Your task to perform on an android device: Open network settings Image 0: 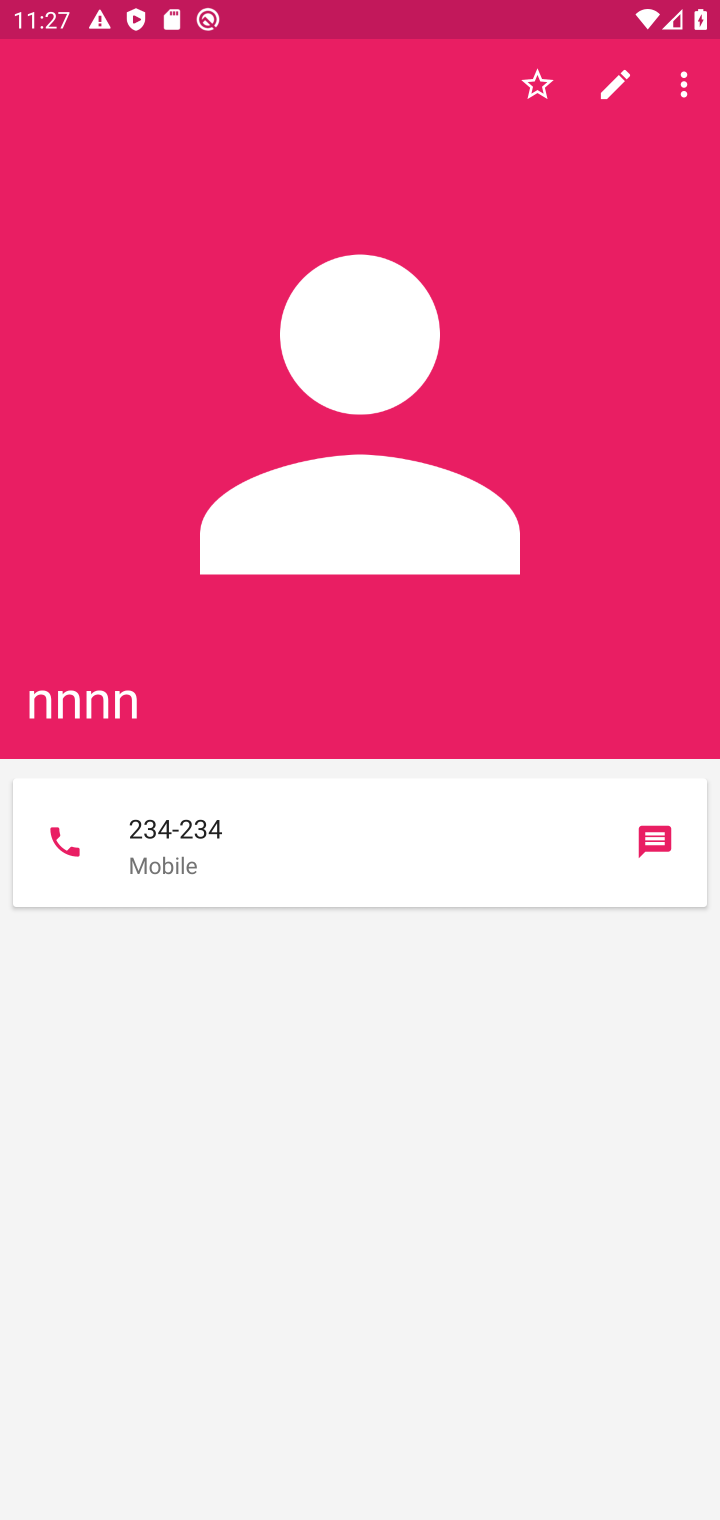
Step 0: press home button
Your task to perform on an android device: Open network settings Image 1: 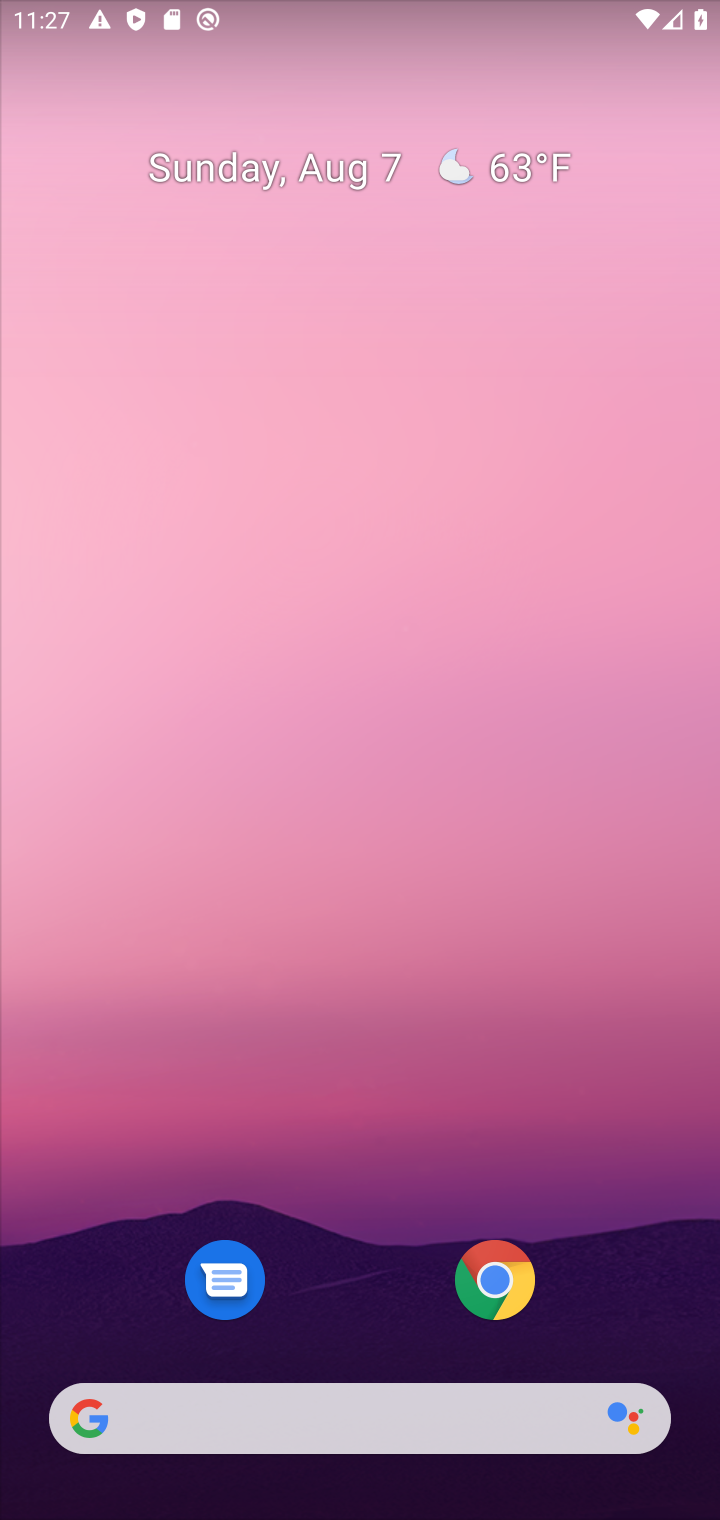
Step 1: drag from (351, 907) to (294, 100)
Your task to perform on an android device: Open network settings Image 2: 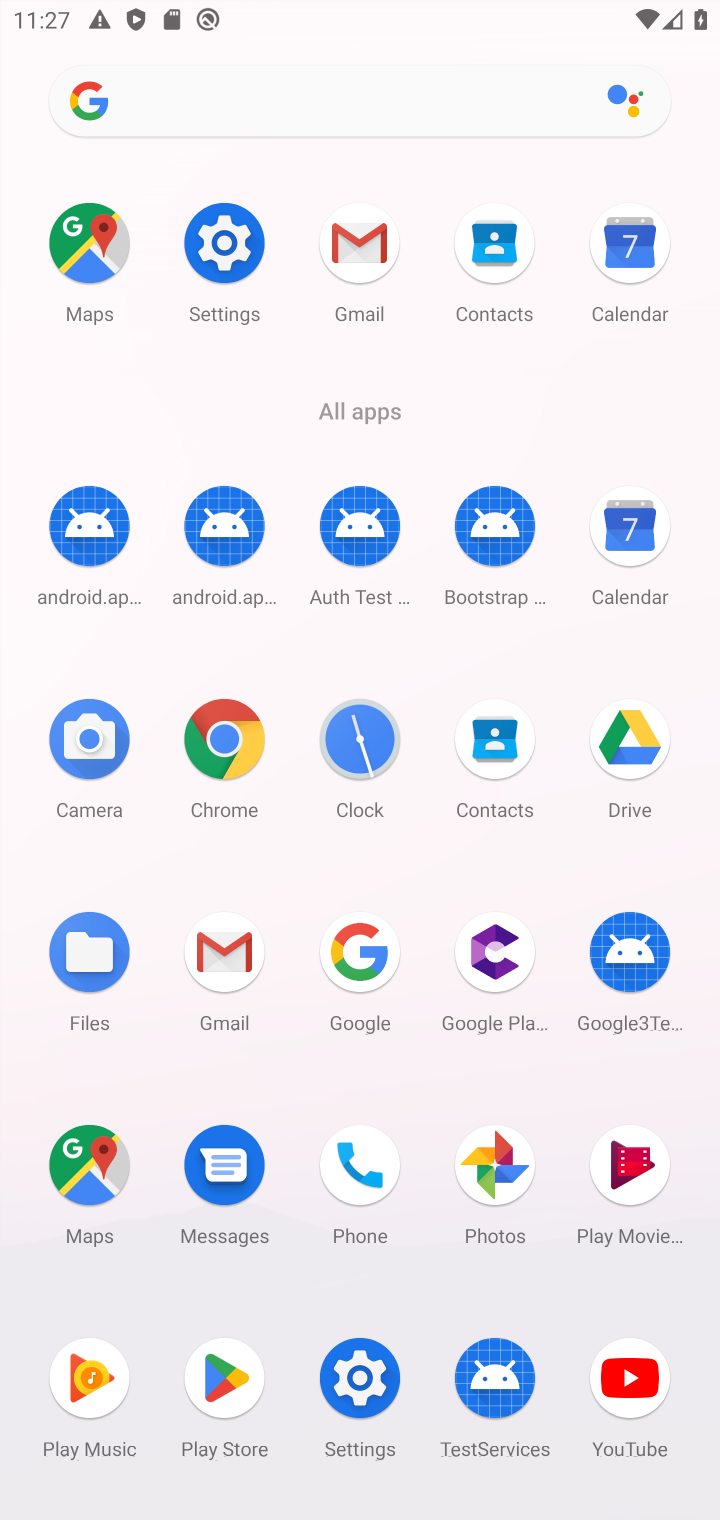
Step 2: click (361, 1374)
Your task to perform on an android device: Open network settings Image 3: 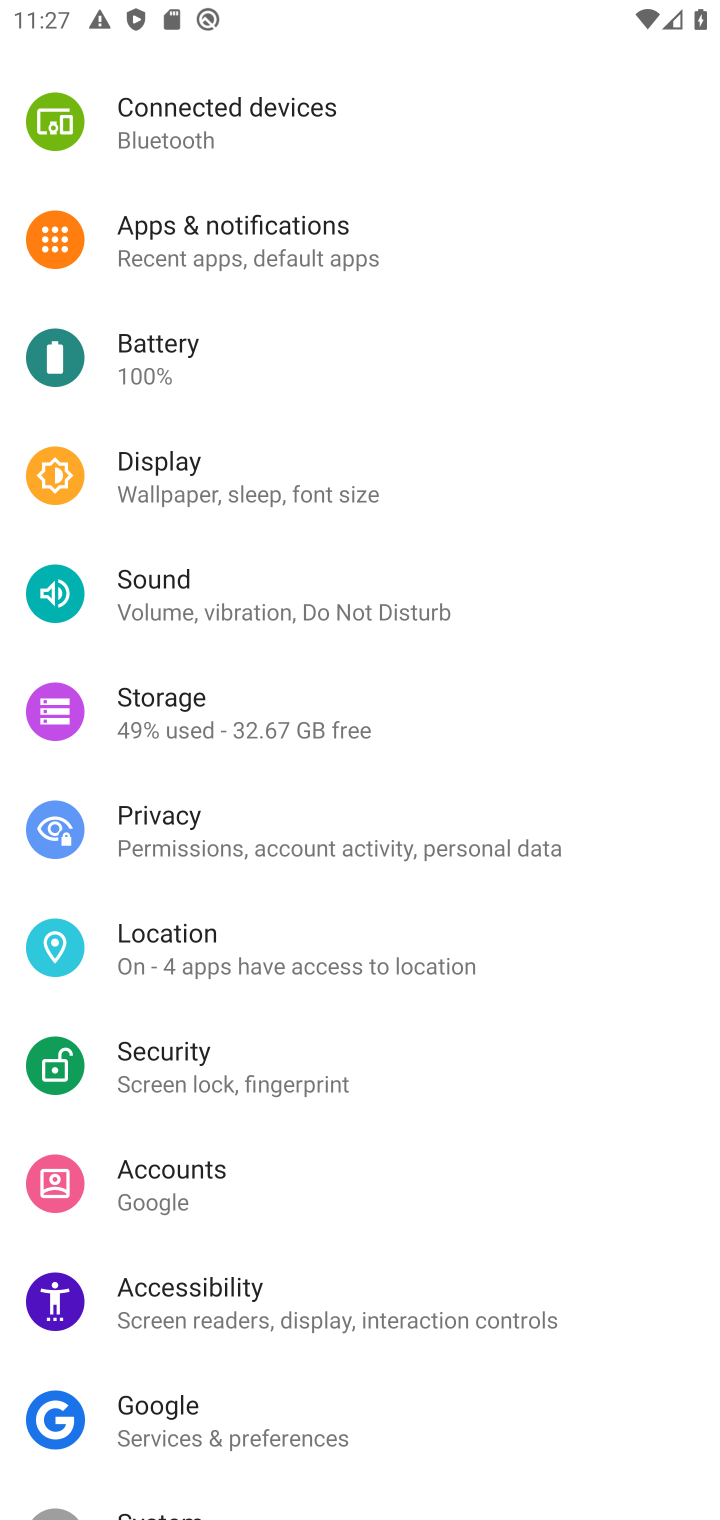
Step 3: drag from (229, 181) to (382, 1269)
Your task to perform on an android device: Open network settings Image 4: 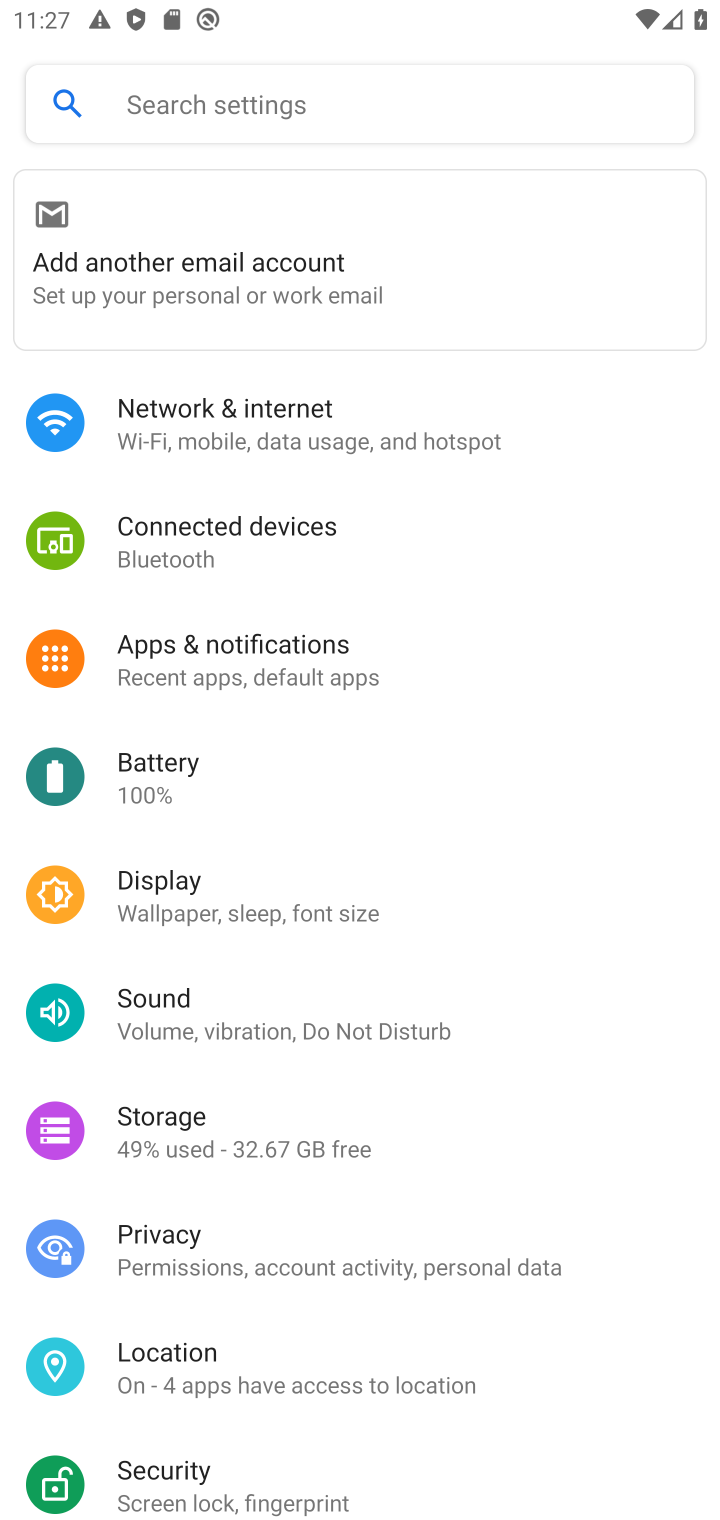
Step 4: click (209, 391)
Your task to perform on an android device: Open network settings Image 5: 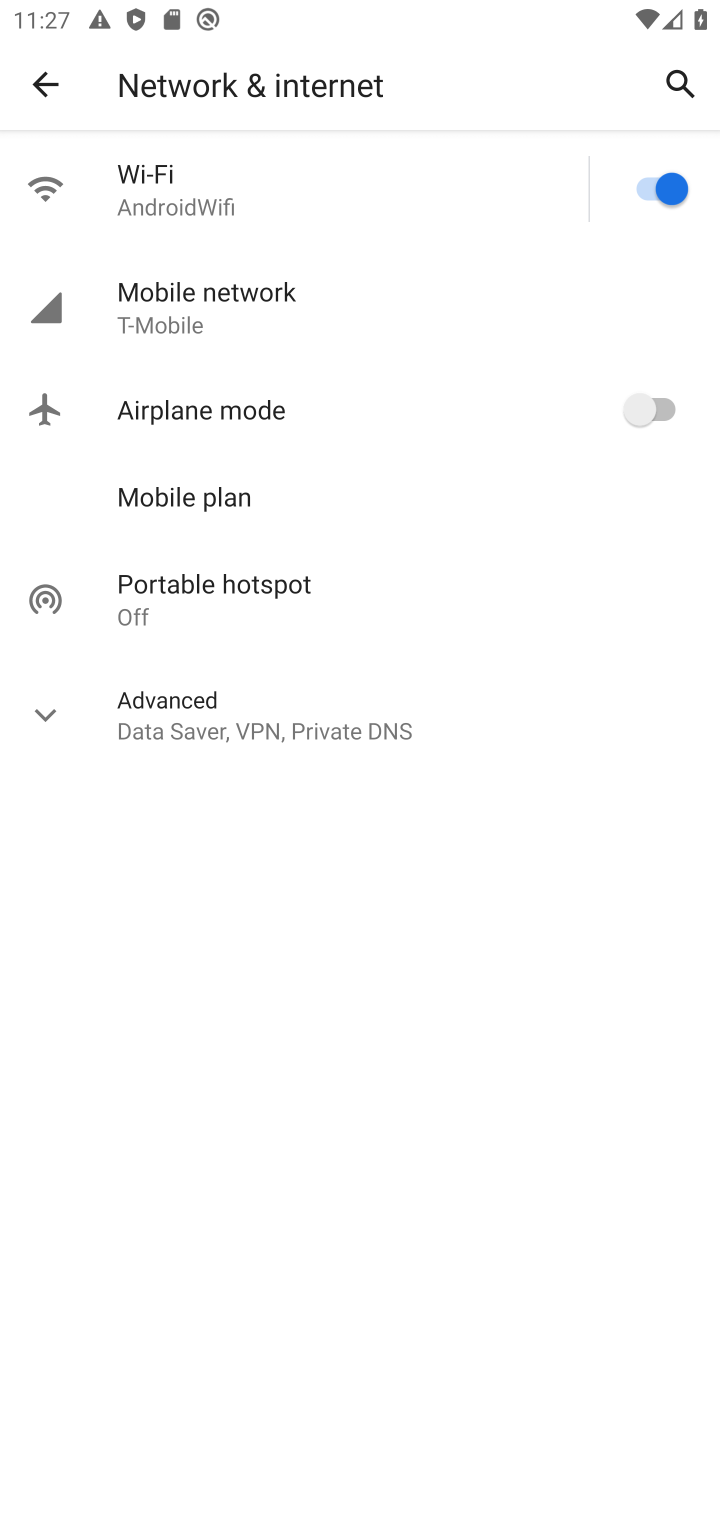
Step 5: click (209, 309)
Your task to perform on an android device: Open network settings Image 6: 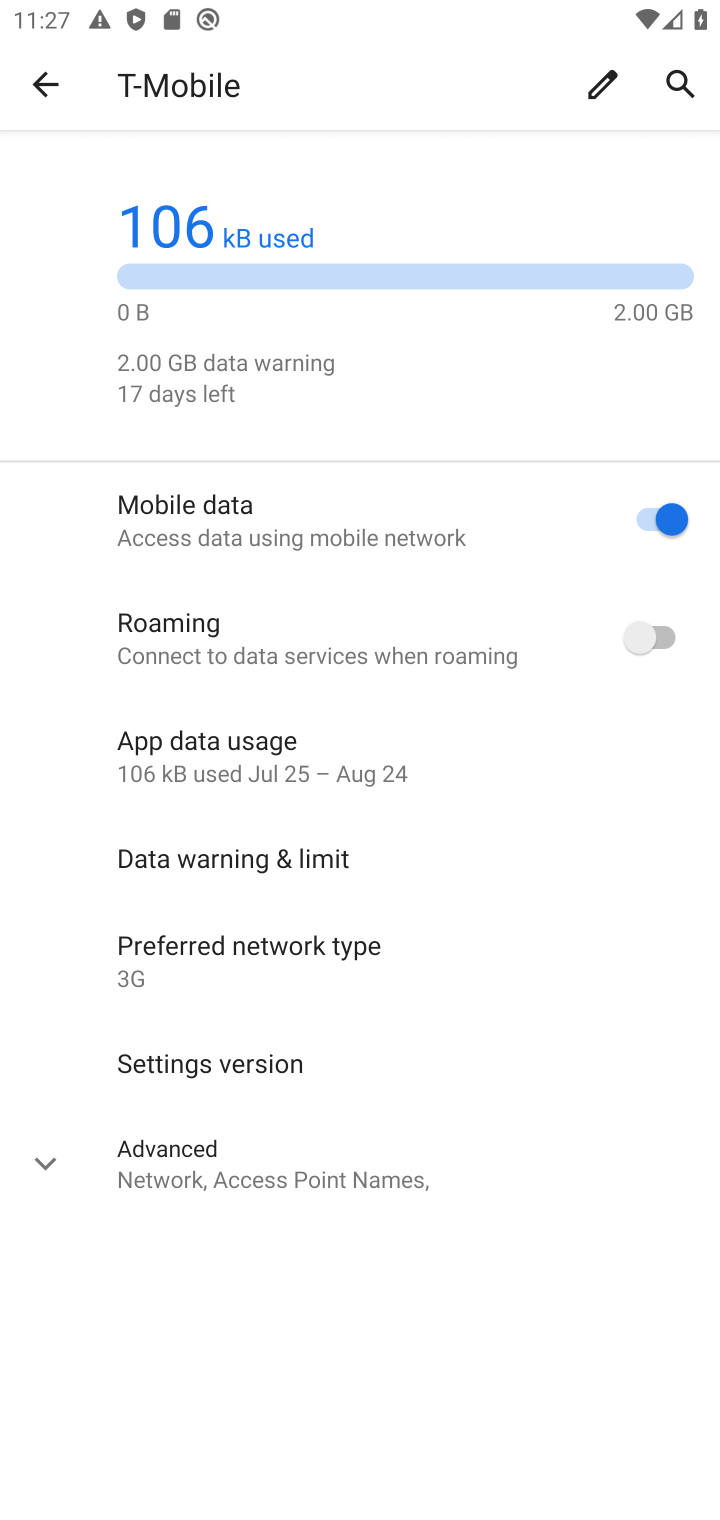
Step 6: task complete